Your task to perform on an android device: turn on the 24-hour format for clock Image 0: 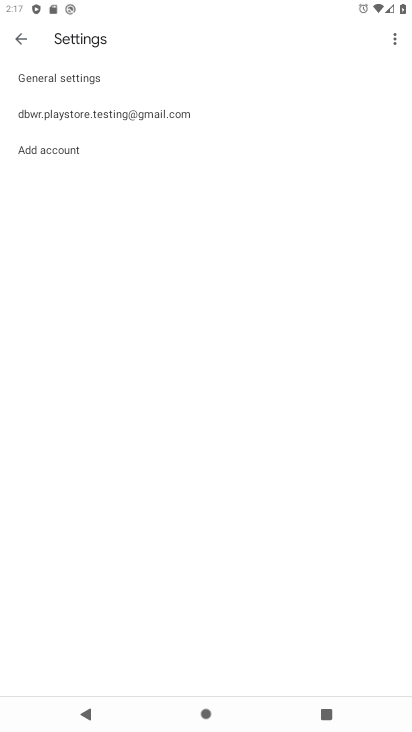
Step 0: press home button
Your task to perform on an android device: turn on the 24-hour format for clock Image 1: 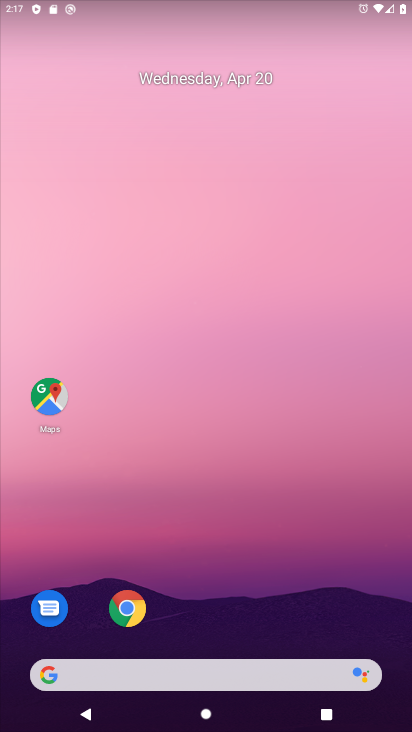
Step 1: drag from (217, 605) to (252, 108)
Your task to perform on an android device: turn on the 24-hour format for clock Image 2: 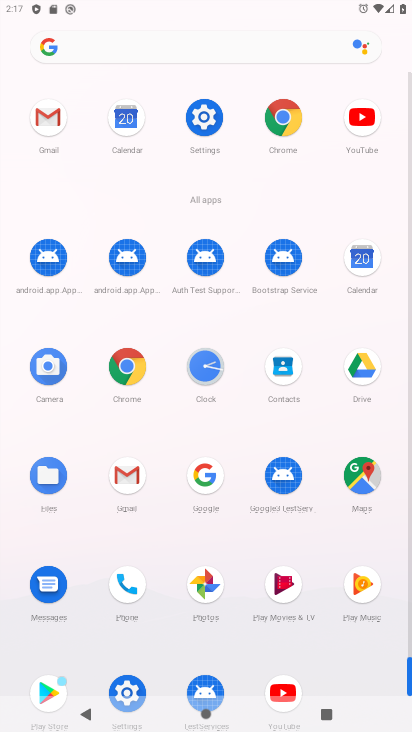
Step 2: click (198, 370)
Your task to perform on an android device: turn on the 24-hour format for clock Image 3: 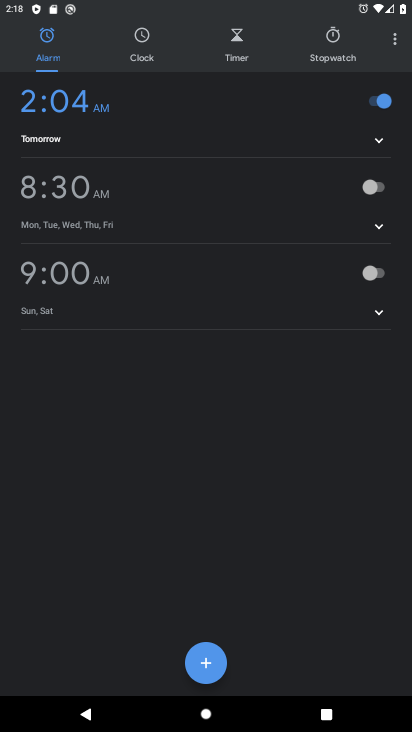
Step 3: click (382, 36)
Your task to perform on an android device: turn on the 24-hour format for clock Image 4: 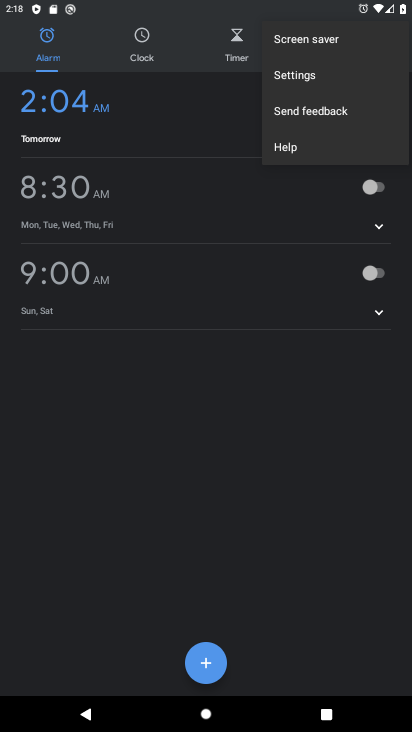
Step 4: click (372, 69)
Your task to perform on an android device: turn on the 24-hour format for clock Image 5: 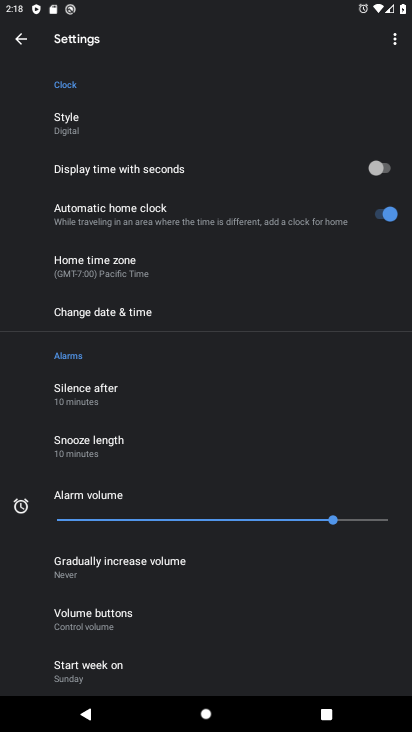
Step 5: click (234, 314)
Your task to perform on an android device: turn on the 24-hour format for clock Image 6: 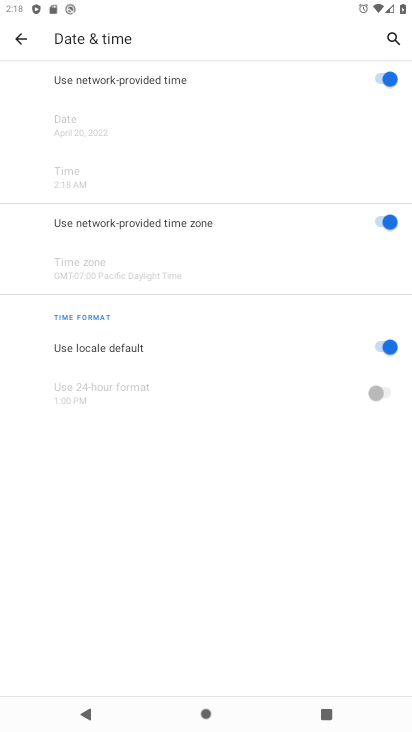
Step 6: click (385, 343)
Your task to perform on an android device: turn on the 24-hour format for clock Image 7: 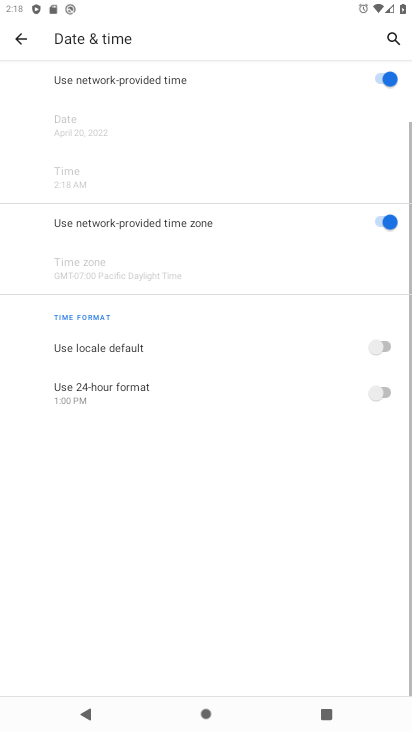
Step 7: click (383, 393)
Your task to perform on an android device: turn on the 24-hour format for clock Image 8: 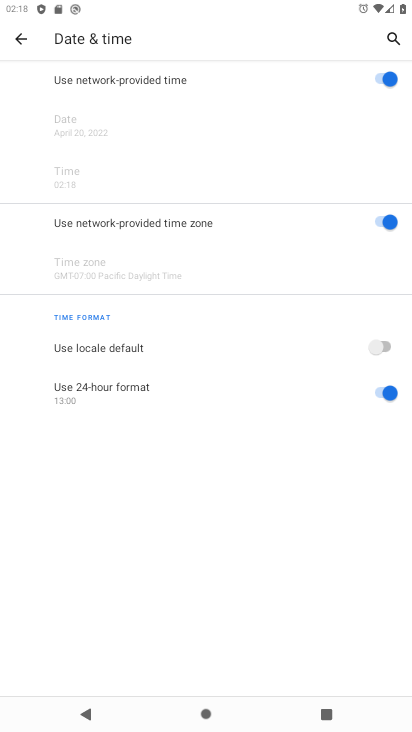
Step 8: task complete